Your task to perform on an android device: turn on location history Image 0: 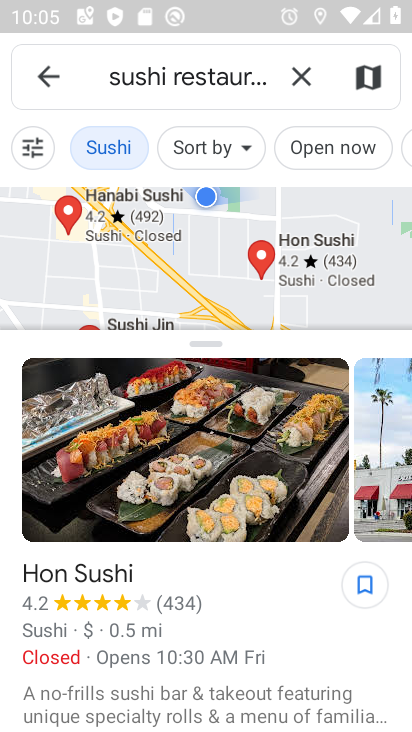
Step 0: press home button
Your task to perform on an android device: turn on location history Image 1: 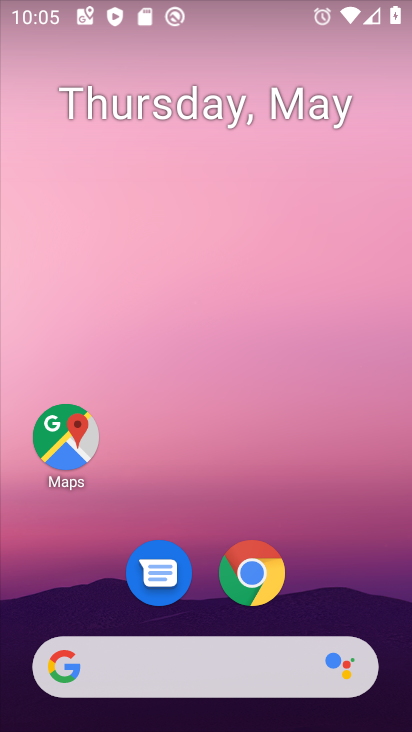
Step 1: drag from (209, 612) to (213, 115)
Your task to perform on an android device: turn on location history Image 2: 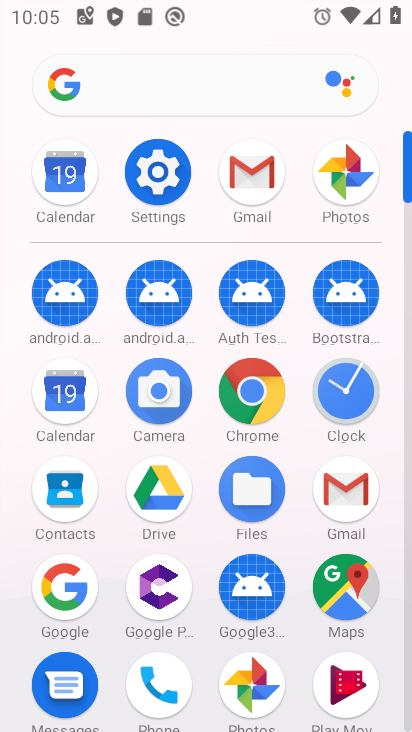
Step 2: click (171, 179)
Your task to perform on an android device: turn on location history Image 3: 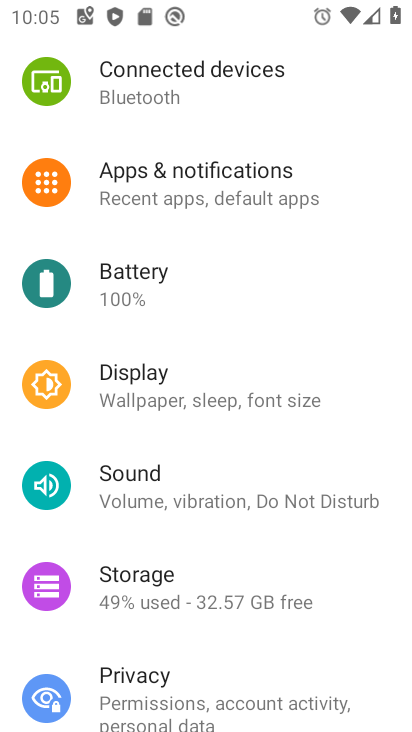
Step 3: drag from (218, 642) to (223, 284)
Your task to perform on an android device: turn on location history Image 4: 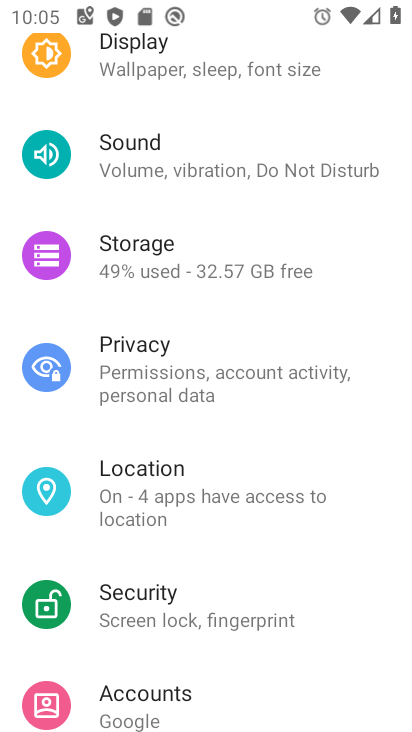
Step 4: click (213, 482)
Your task to perform on an android device: turn on location history Image 5: 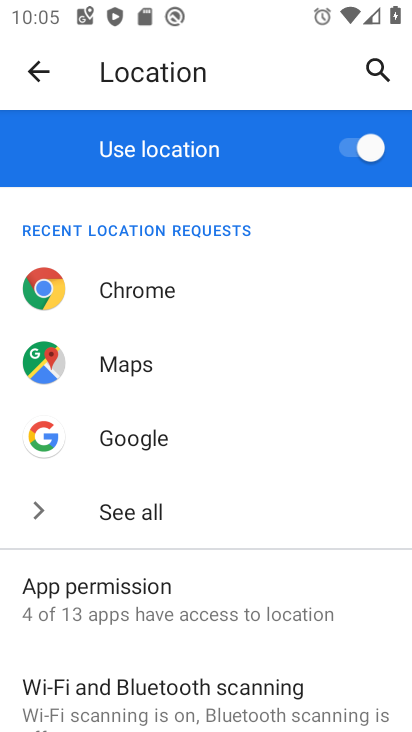
Step 5: drag from (221, 632) to (217, 365)
Your task to perform on an android device: turn on location history Image 6: 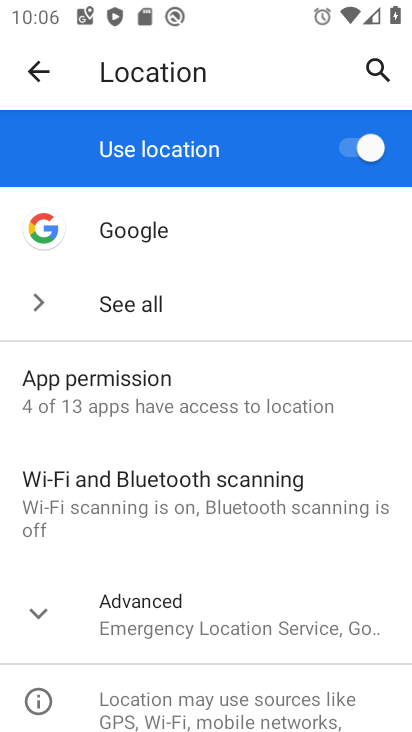
Step 6: click (220, 607)
Your task to perform on an android device: turn on location history Image 7: 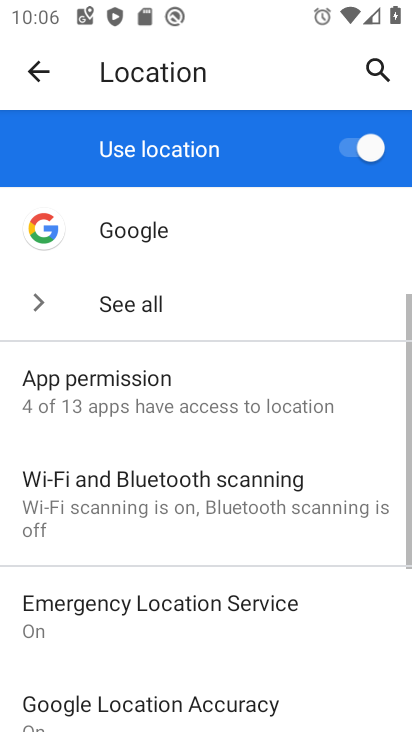
Step 7: drag from (224, 606) to (248, 429)
Your task to perform on an android device: turn on location history Image 8: 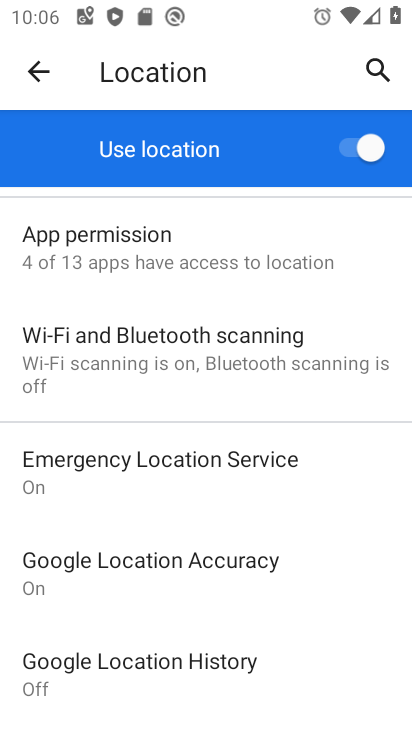
Step 8: click (225, 653)
Your task to perform on an android device: turn on location history Image 9: 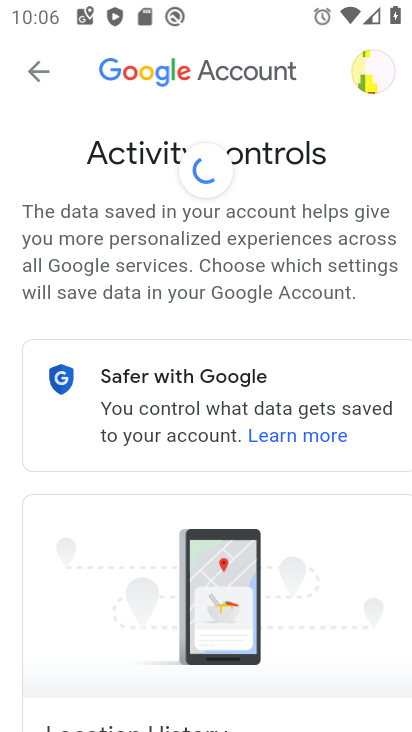
Step 9: task complete